Your task to perform on an android device: Open Maps and search for coffee Image 0: 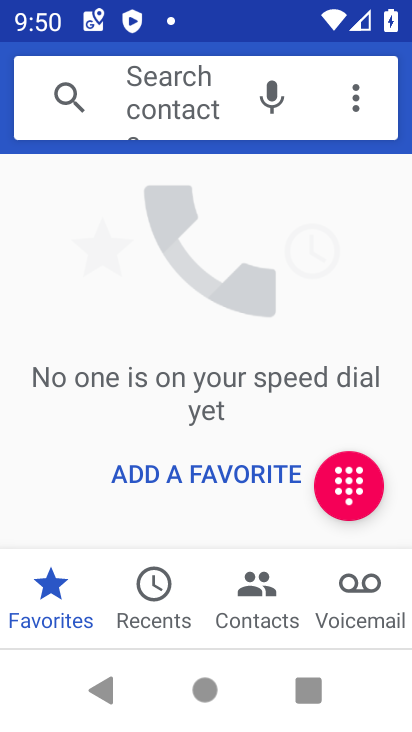
Step 0: press home button
Your task to perform on an android device: Open Maps and search for coffee Image 1: 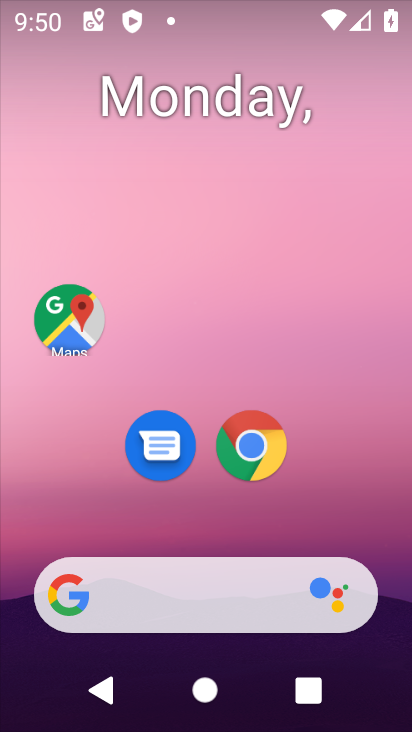
Step 1: click (63, 320)
Your task to perform on an android device: Open Maps and search for coffee Image 2: 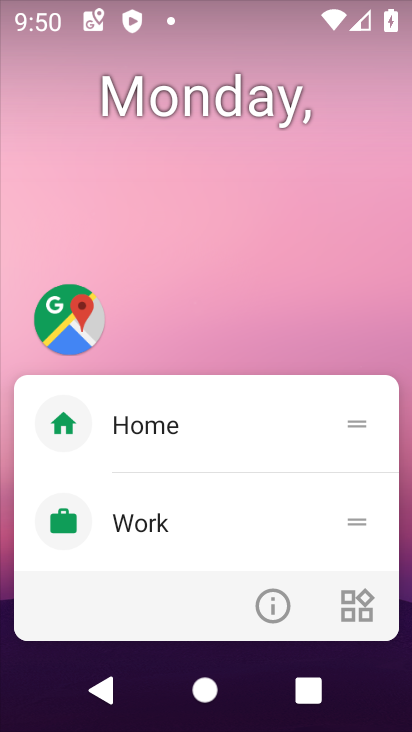
Step 2: click (60, 322)
Your task to perform on an android device: Open Maps and search for coffee Image 3: 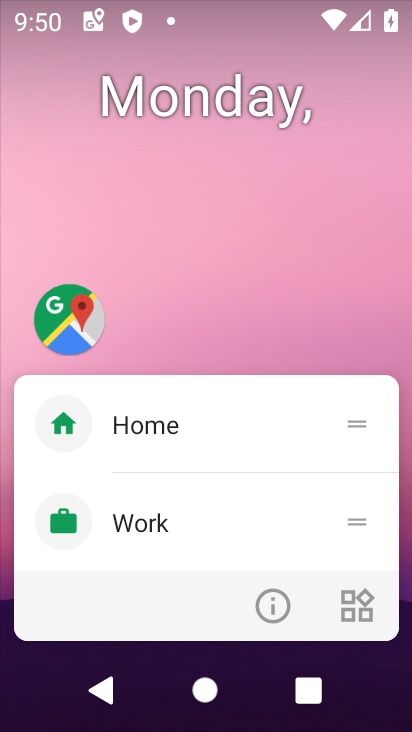
Step 3: click (63, 332)
Your task to perform on an android device: Open Maps and search for coffee Image 4: 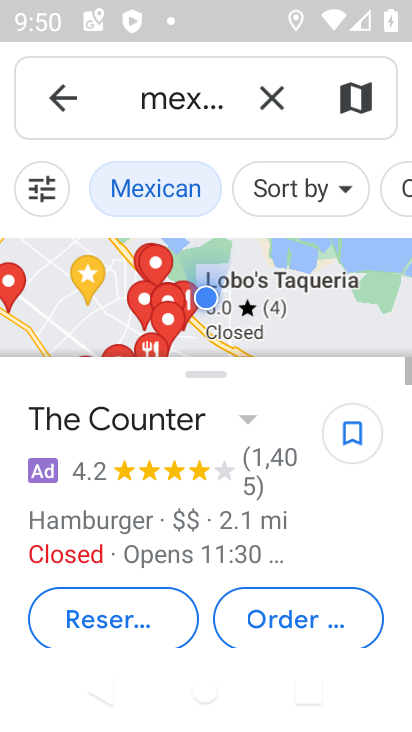
Step 4: click (268, 103)
Your task to perform on an android device: Open Maps and search for coffee Image 5: 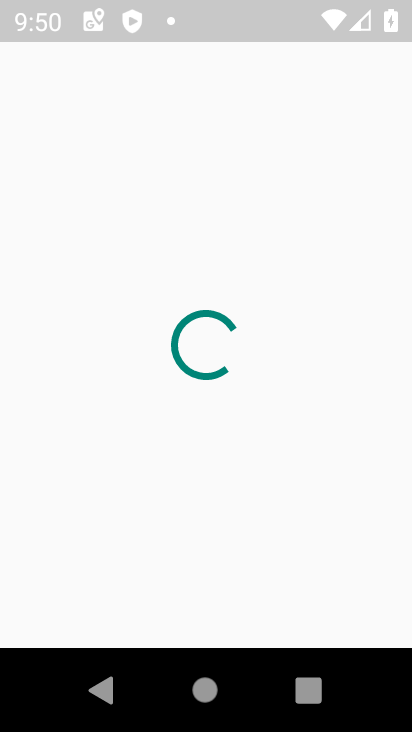
Step 5: click (214, 104)
Your task to perform on an android device: Open Maps and search for coffee Image 6: 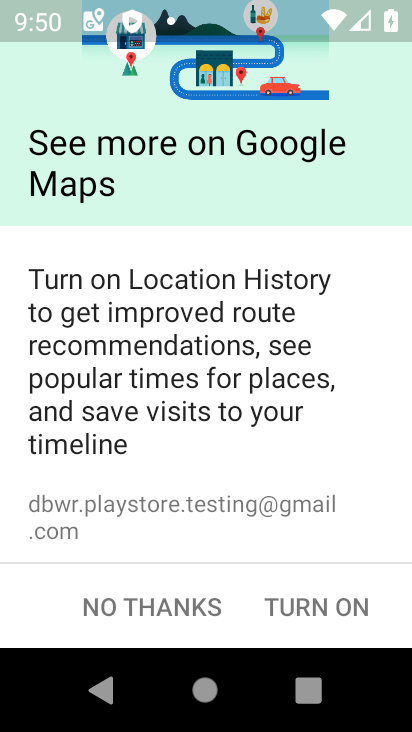
Step 6: click (149, 606)
Your task to perform on an android device: Open Maps and search for coffee Image 7: 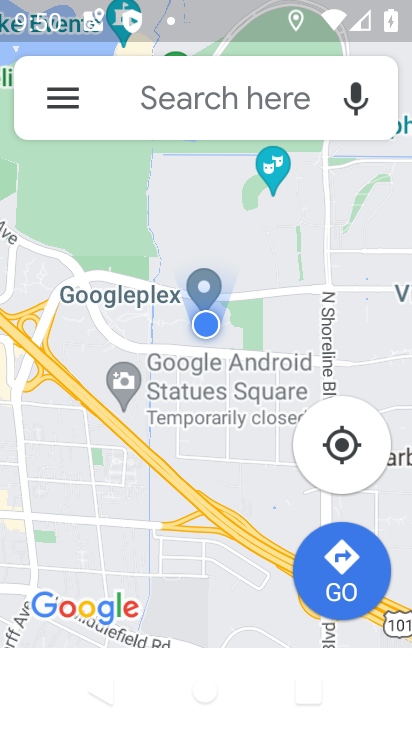
Step 7: click (180, 100)
Your task to perform on an android device: Open Maps and search for coffee Image 8: 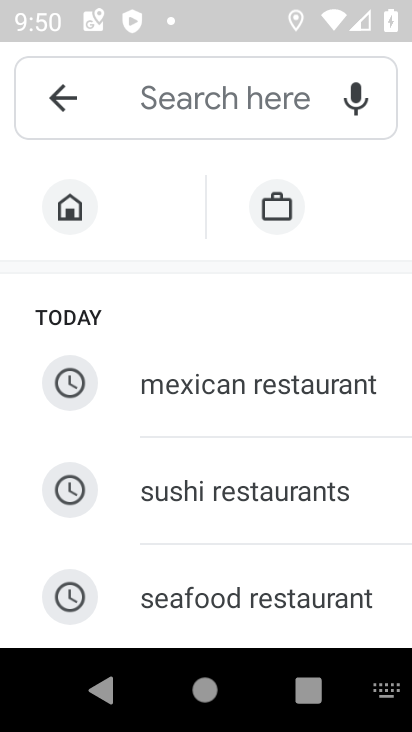
Step 8: type "Coffee"
Your task to perform on an android device: Open Maps and search for coffee Image 9: 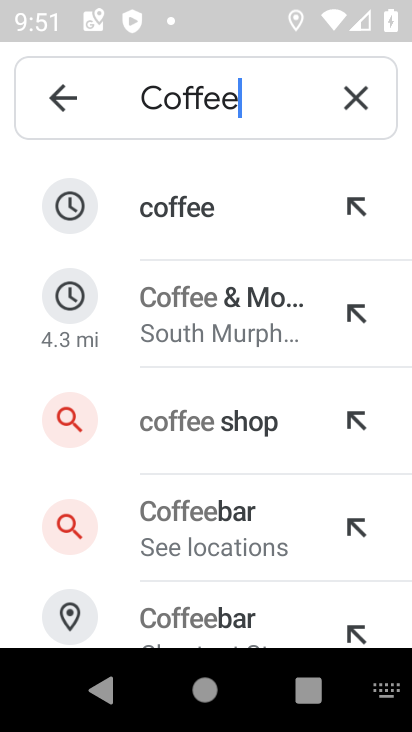
Step 9: click (166, 214)
Your task to perform on an android device: Open Maps and search for coffee Image 10: 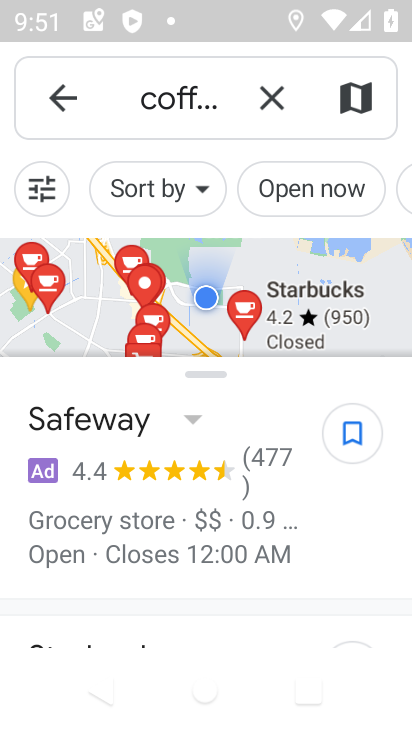
Step 10: task complete